Your task to perform on an android device: Search for a new bike on Walmart. Image 0: 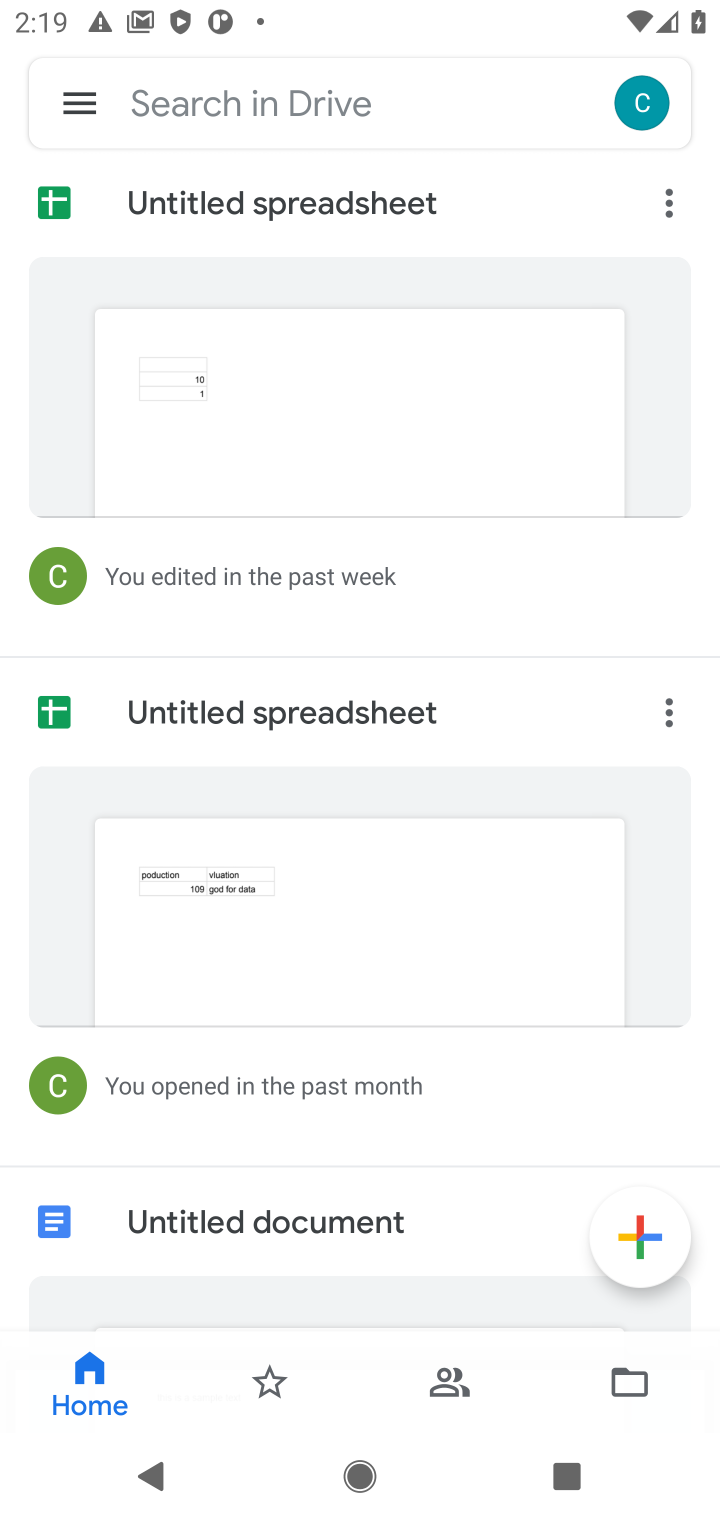
Step 0: press home button
Your task to perform on an android device: Search for a new bike on Walmart. Image 1: 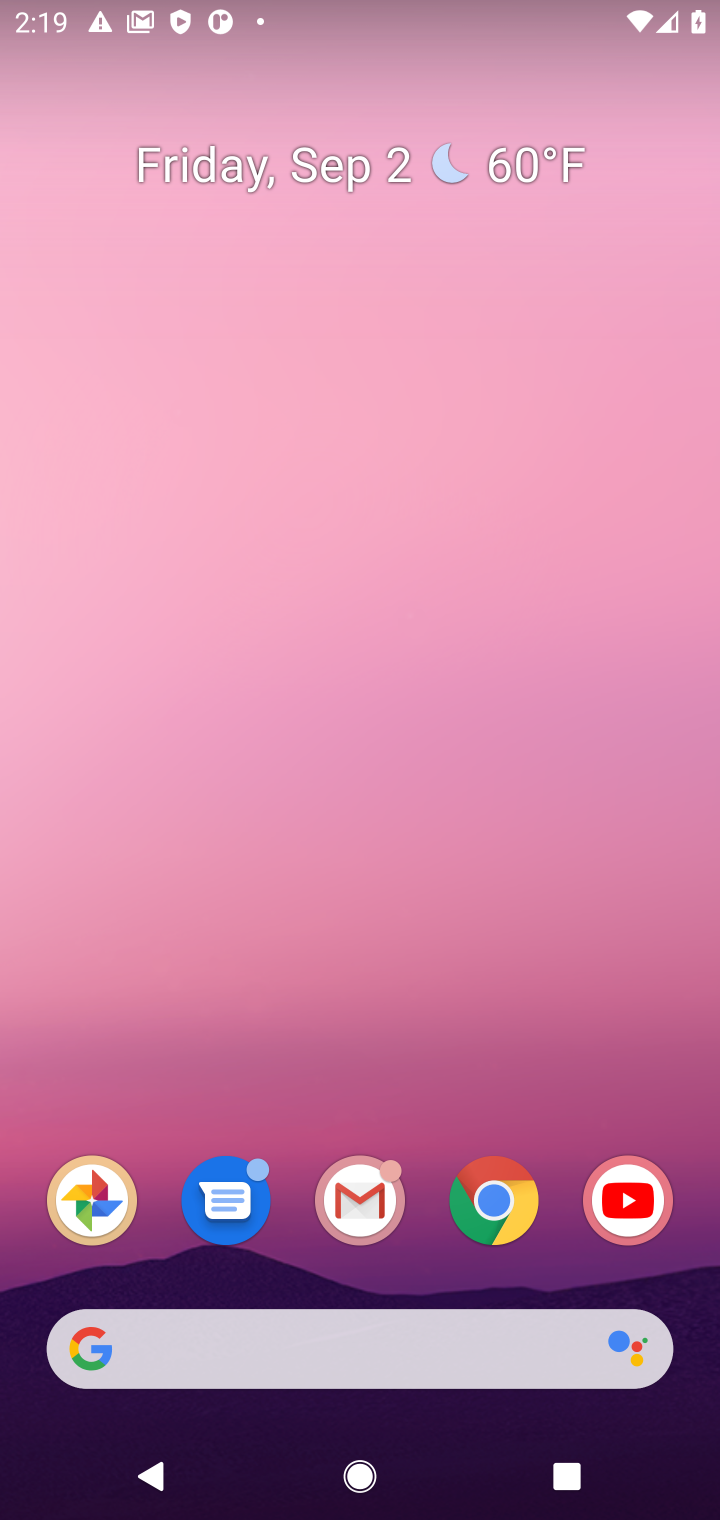
Step 1: click (485, 1198)
Your task to perform on an android device: Search for a new bike on Walmart. Image 2: 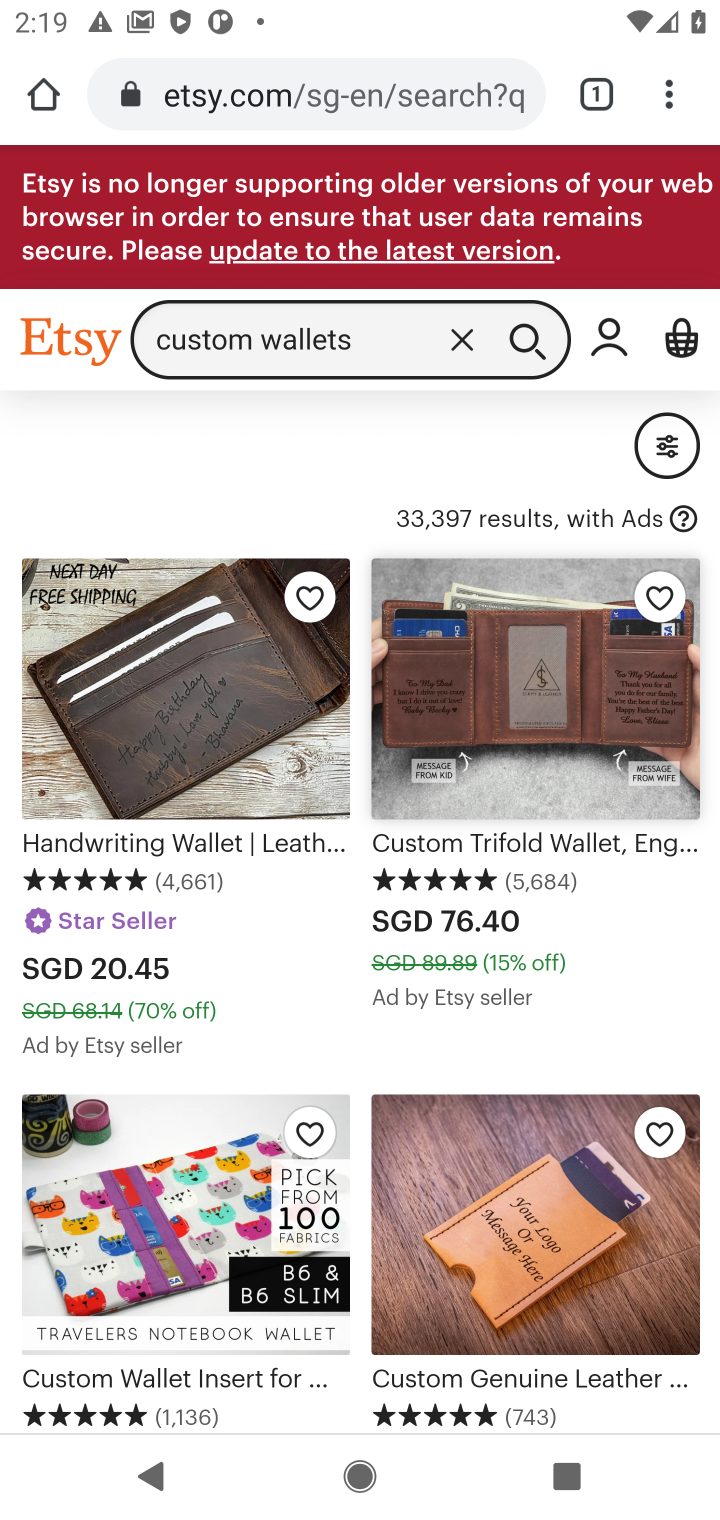
Step 2: click (339, 107)
Your task to perform on an android device: Search for a new bike on Walmart. Image 3: 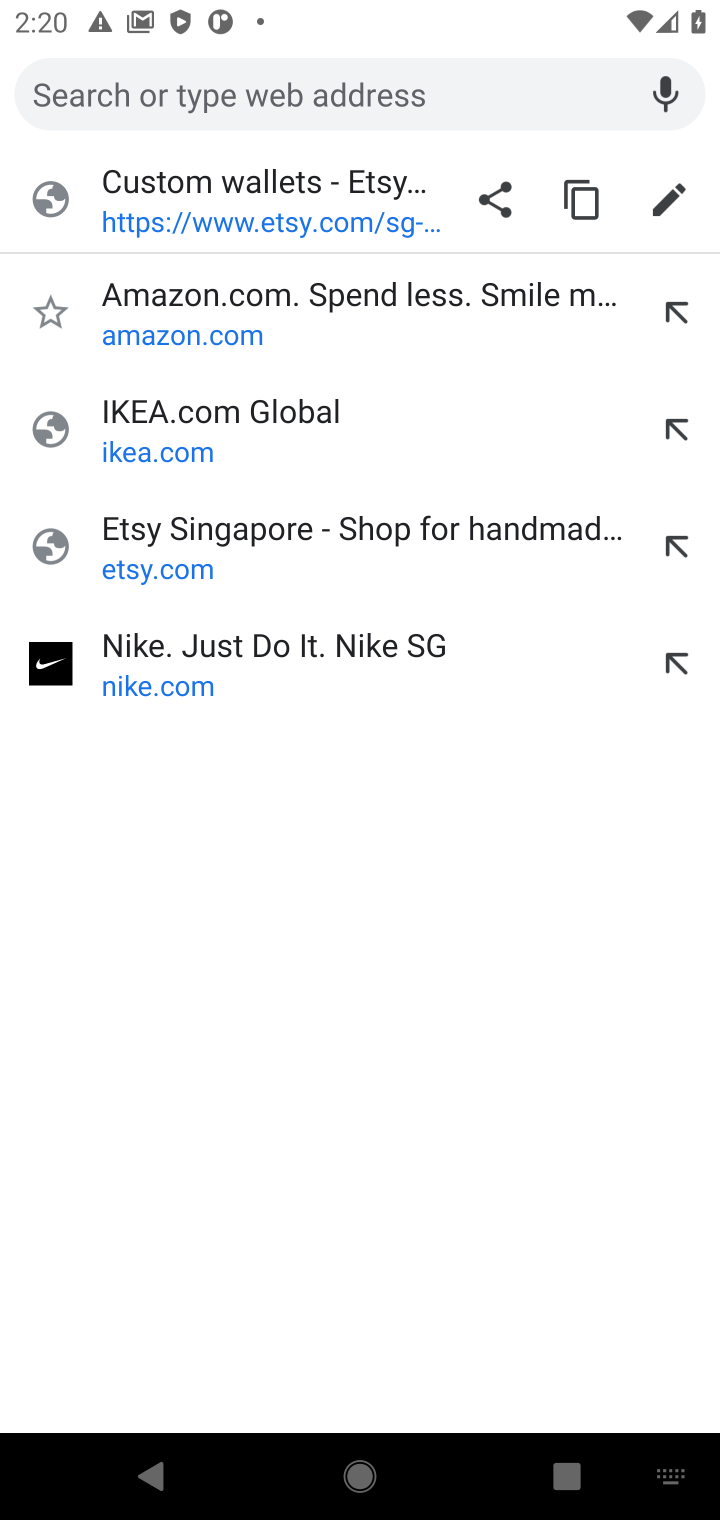
Step 3: type "Walmart"
Your task to perform on an android device: Search for a new bike on Walmart. Image 4: 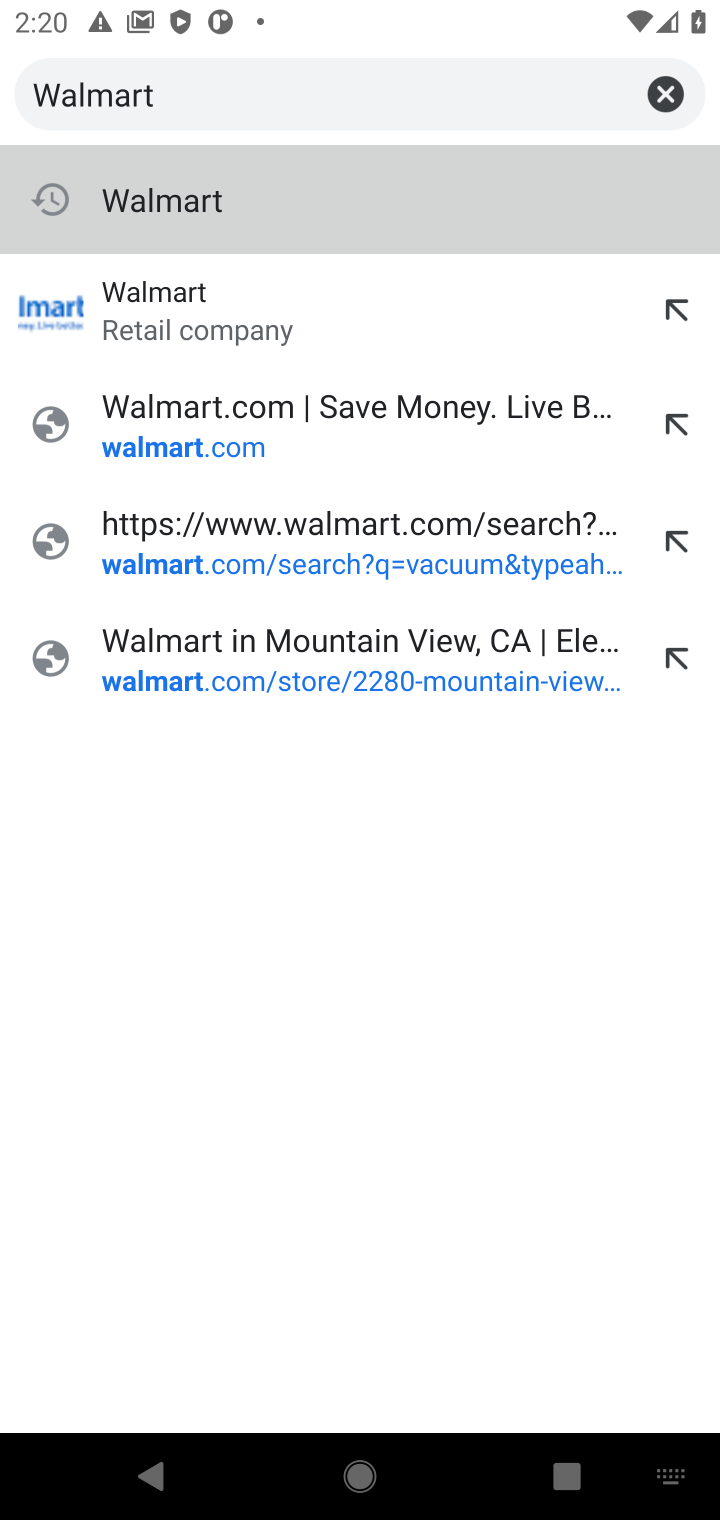
Step 4: press enter
Your task to perform on an android device: Search for a new bike on Walmart. Image 5: 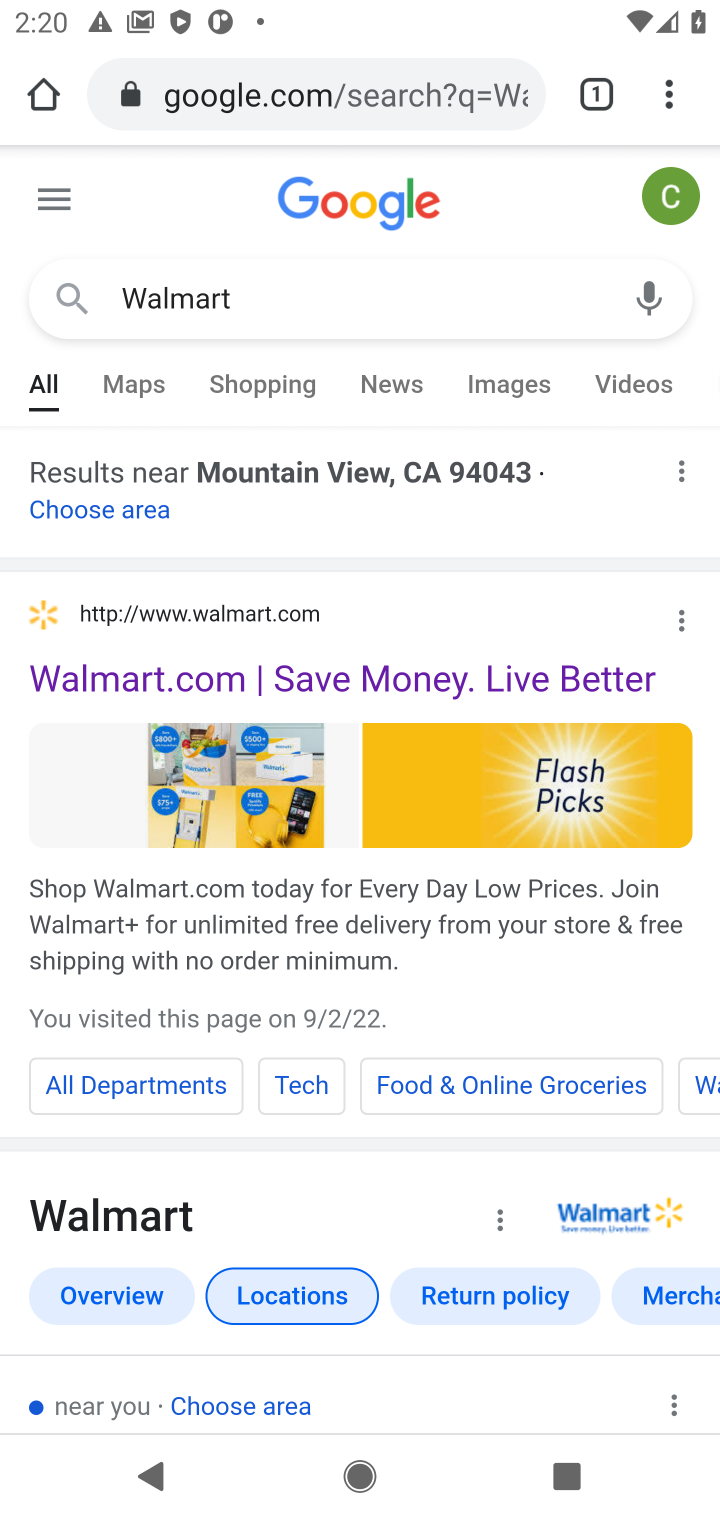
Step 5: drag from (422, 935) to (465, 178)
Your task to perform on an android device: Search for a new bike on Walmart. Image 6: 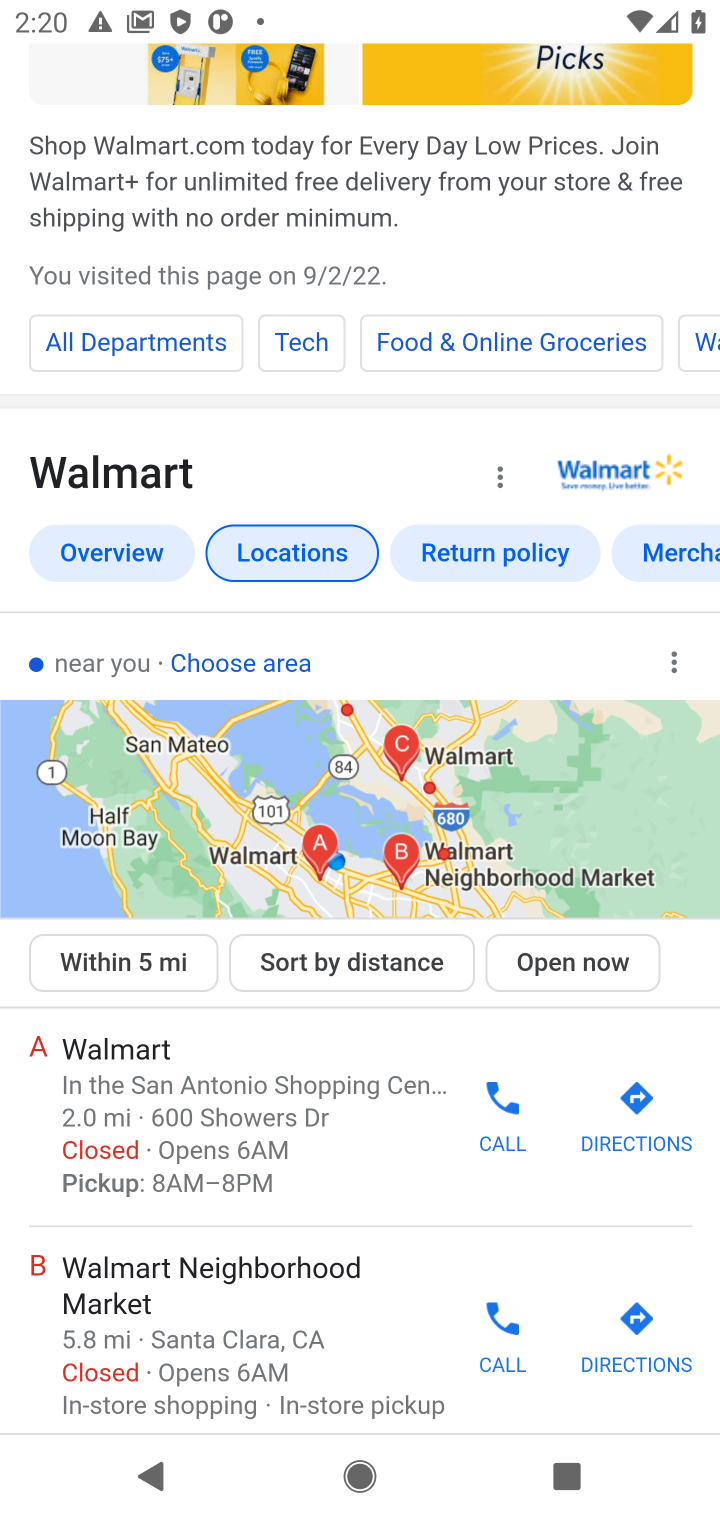
Step 6: drag from (358, 730) to (613, 110)
Your task to perform on an android device: Search for a new bike on Walmart. Image 7: 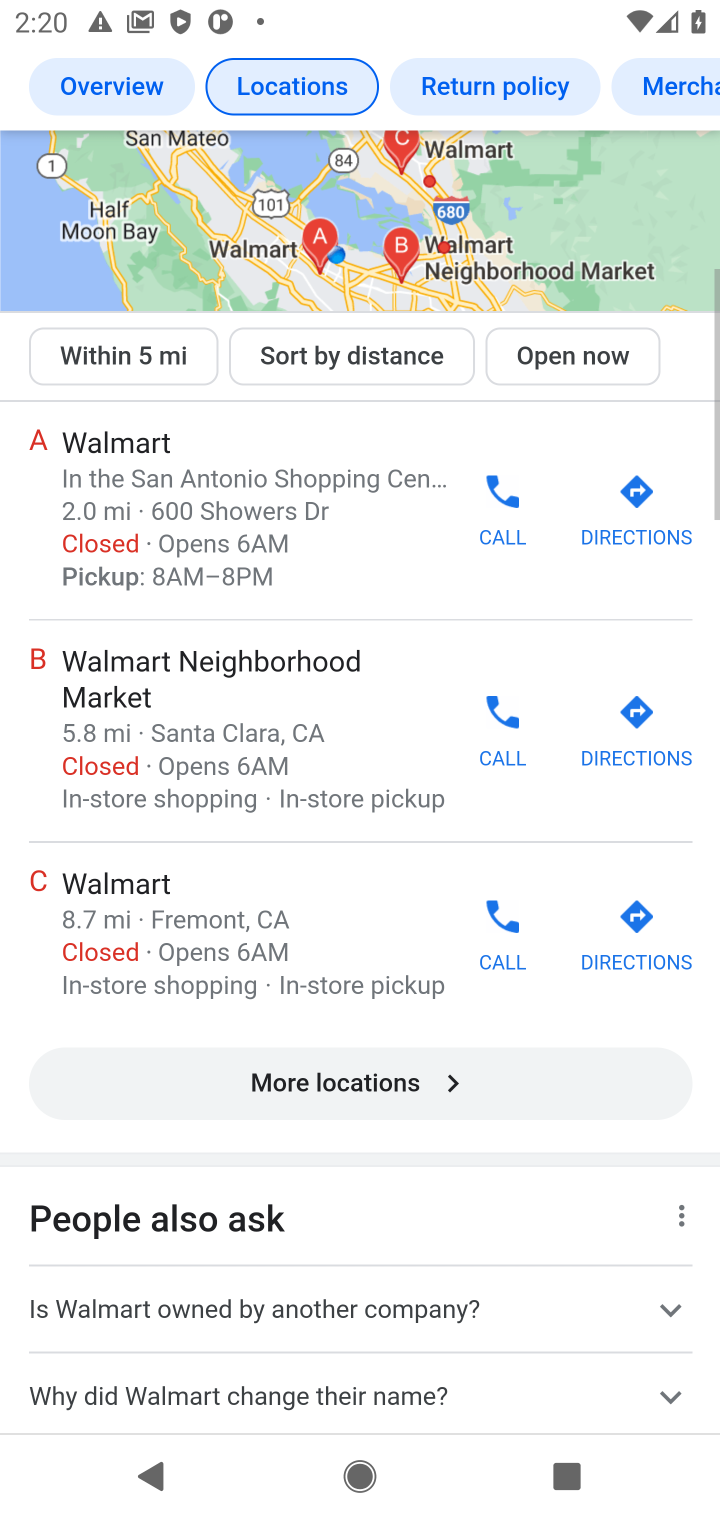
Step 7: drag from (225, 1222) to (507, 193)
Your task to perform on an android device: Search for a new bike on Walmart. Image 8: 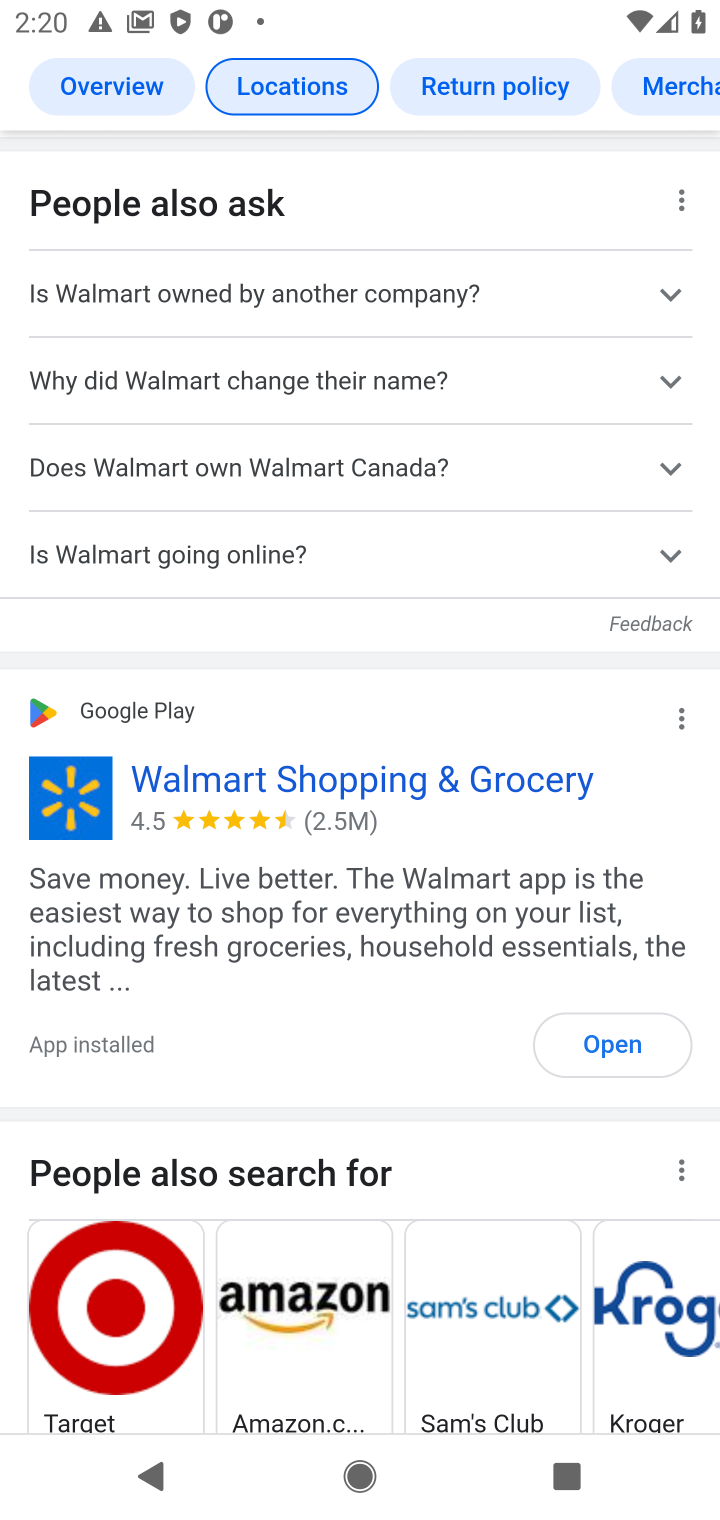
Step 8: drag from (204, 1217) to (450, 429)
Your task to perform on an android device: Search for a new bike on Walmart. Image 9: 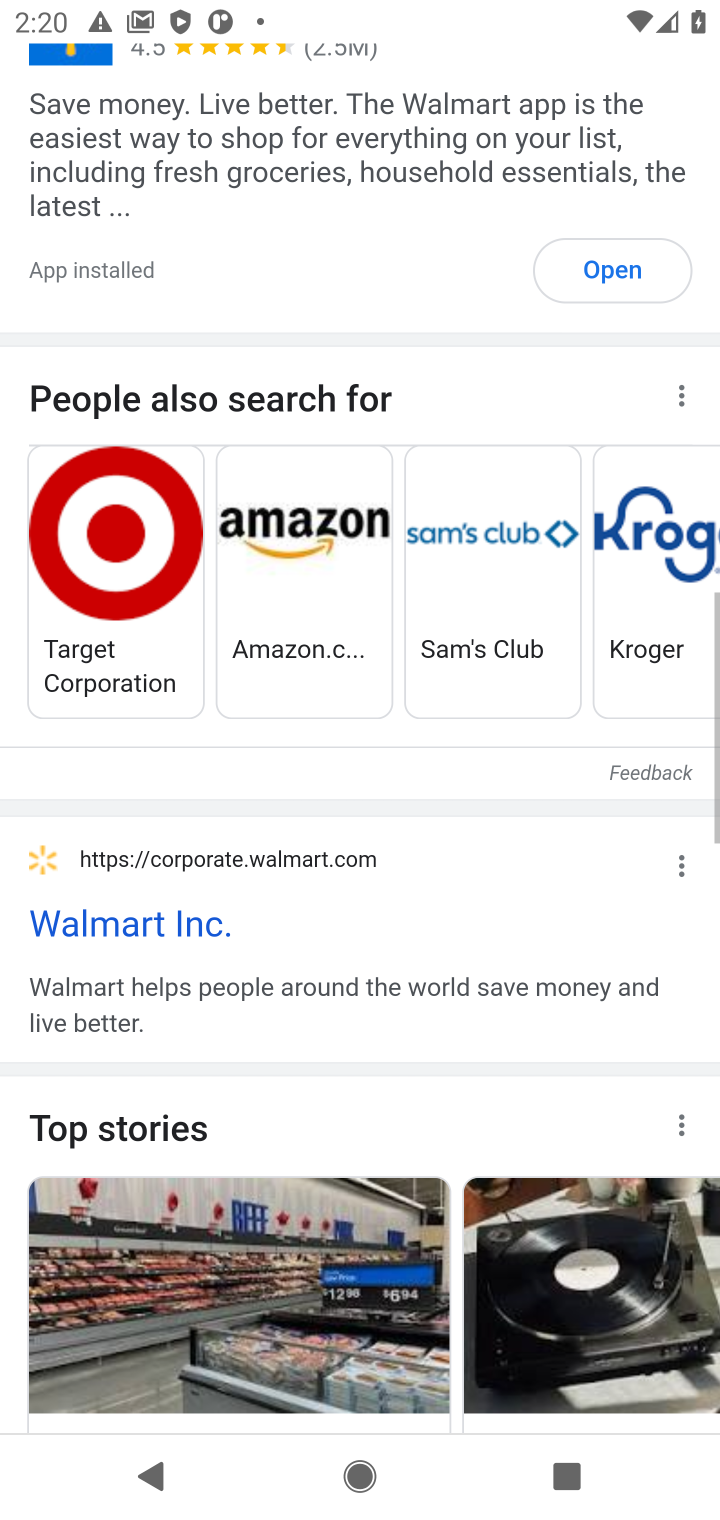
Step 9: drag from (375, 943) to (477, 228)
Your task to perform on an android device: Search for a new bike on Walmart. Image 10: 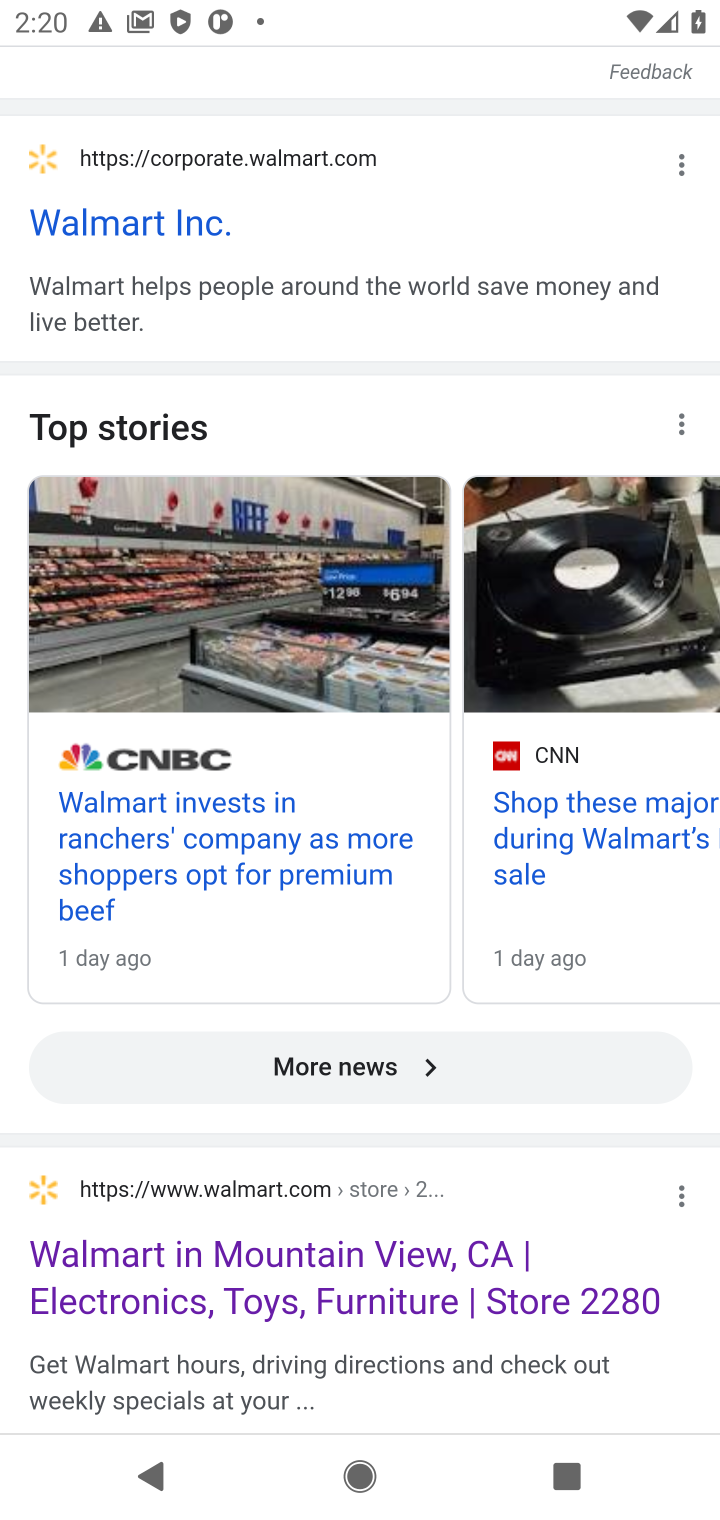
Step 10: drag from (286, 1315) to (471, 201)
Your task to perform on an android device: Search for a new bike on Walmart. Image 11: 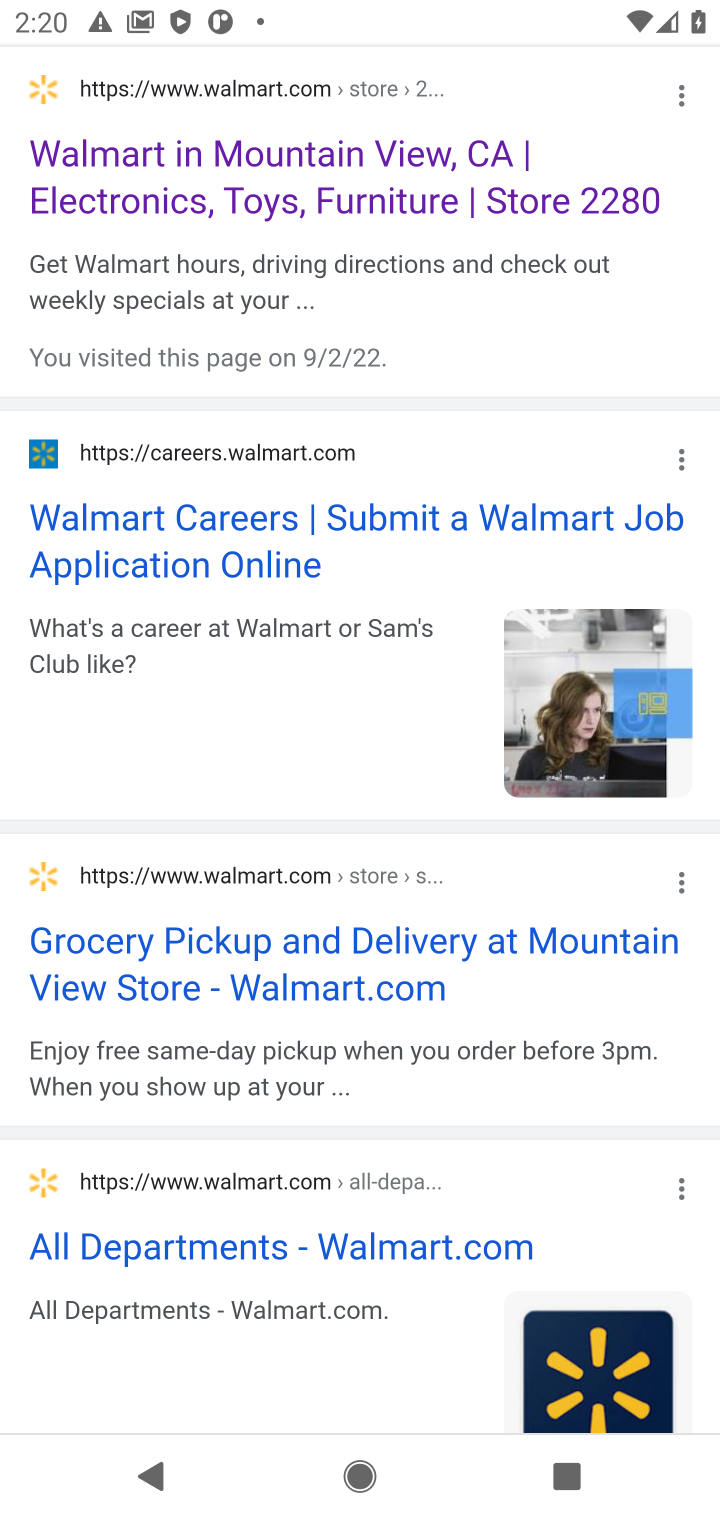
Step 11: drag from (372, 1128) to (496, 667)
Your task to perform on an android device: Search for a new bike on Walmart. Image 12: 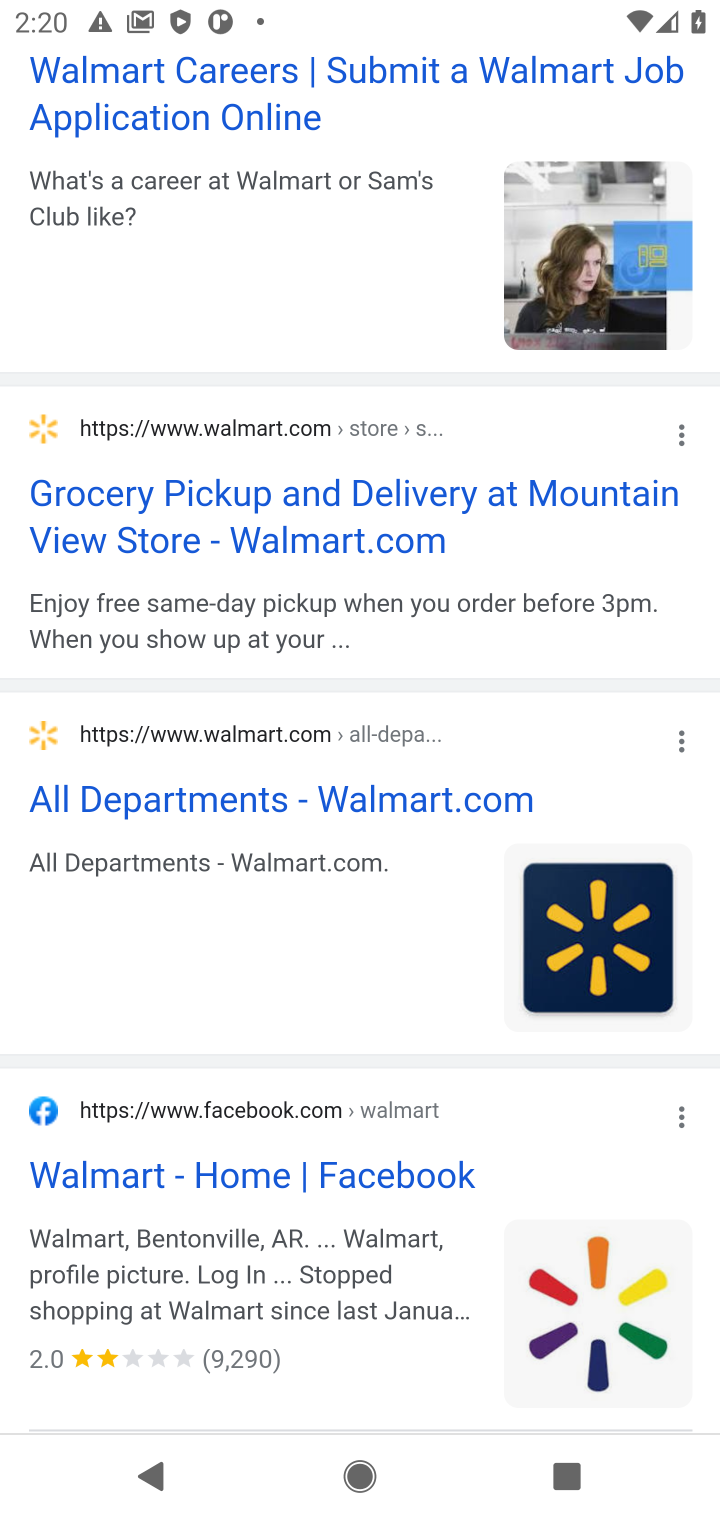
Step 12: click (374, 798)
Your task to perform on an android device: Search for a new bike on Walmart. Image 13: 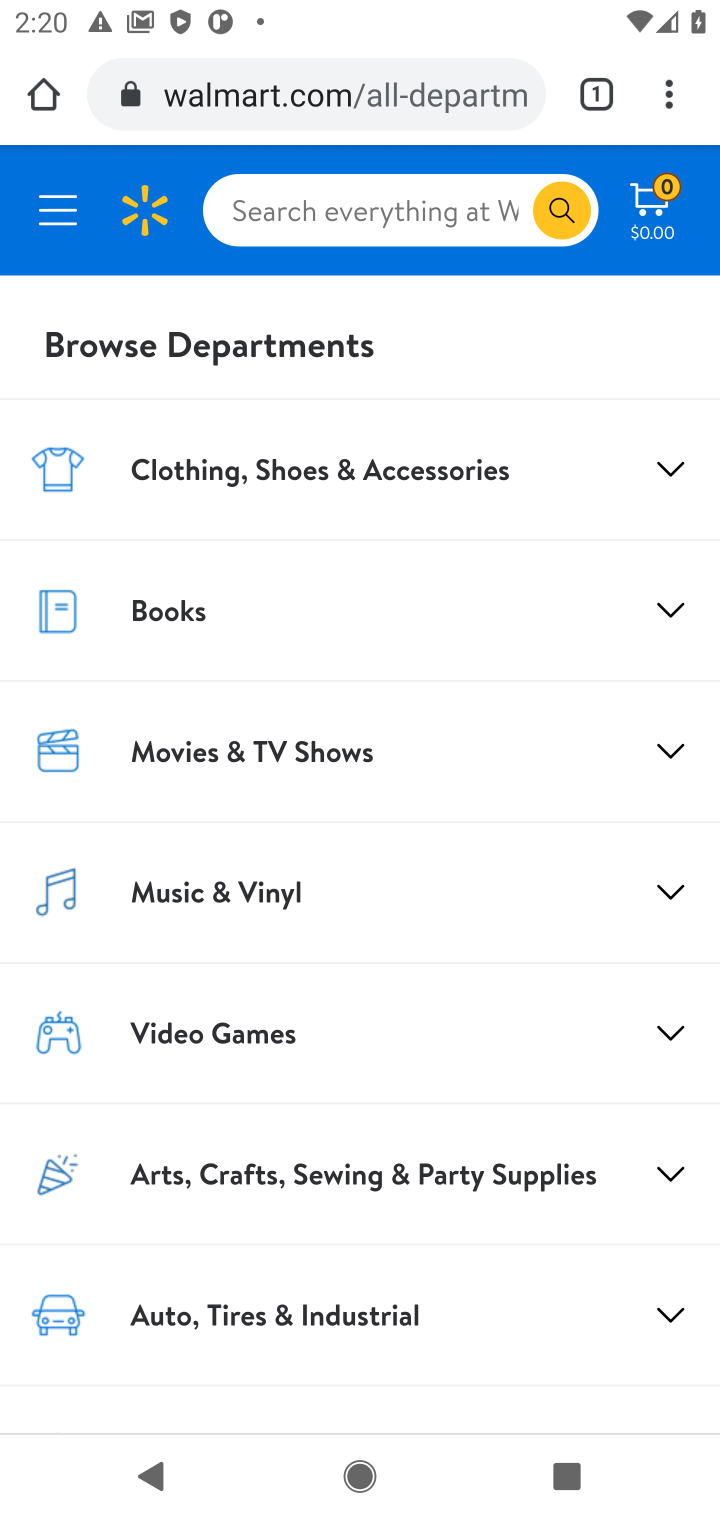
Step 13: click (293, 216)
Your task to perform on an android device: Search for a new bike on Walmart. Image 14: 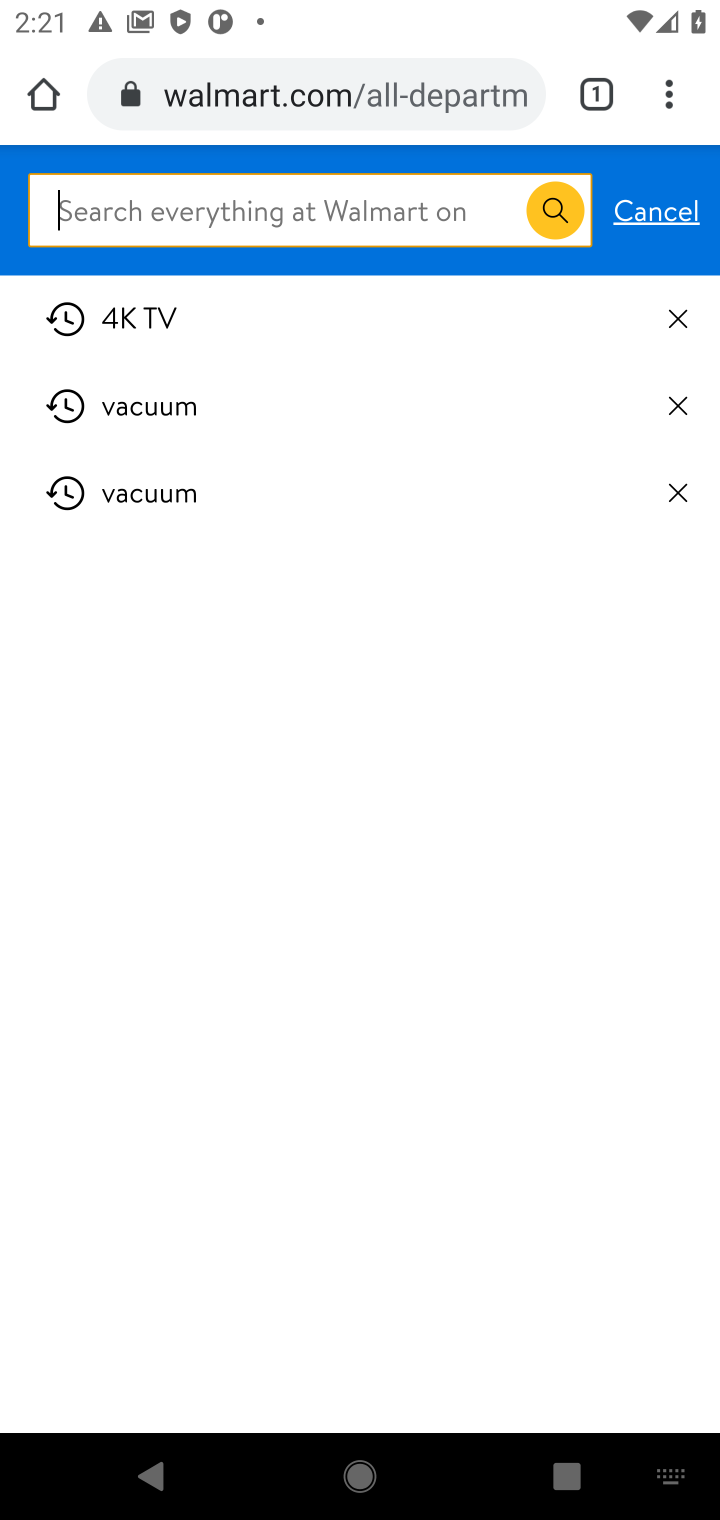
Step 14: type "new bike"
Your task to perform on an android device: Search for a new bike on Walmart. Image 15: 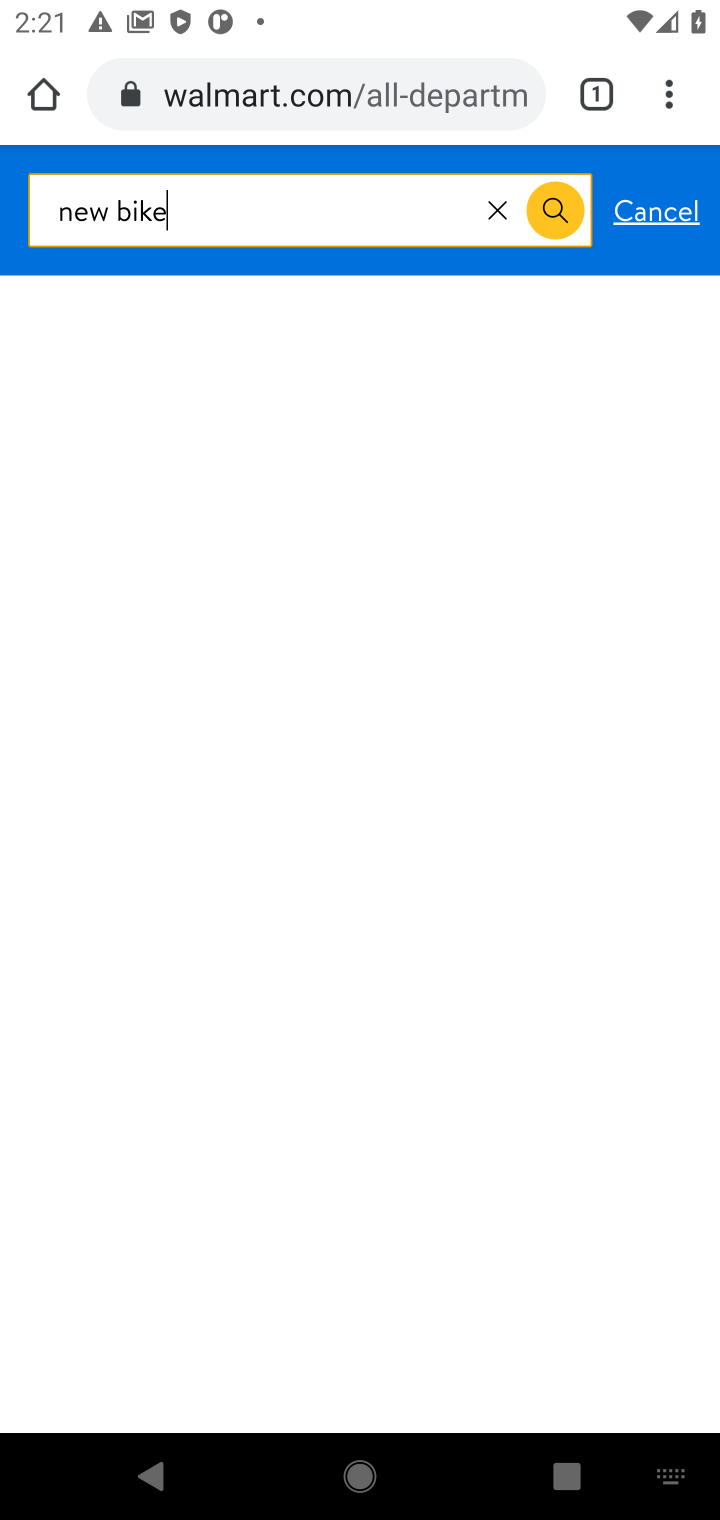
Step 15: press enter
Your task to perform on an android device: Search for a new bike on Walmart. Image 16: 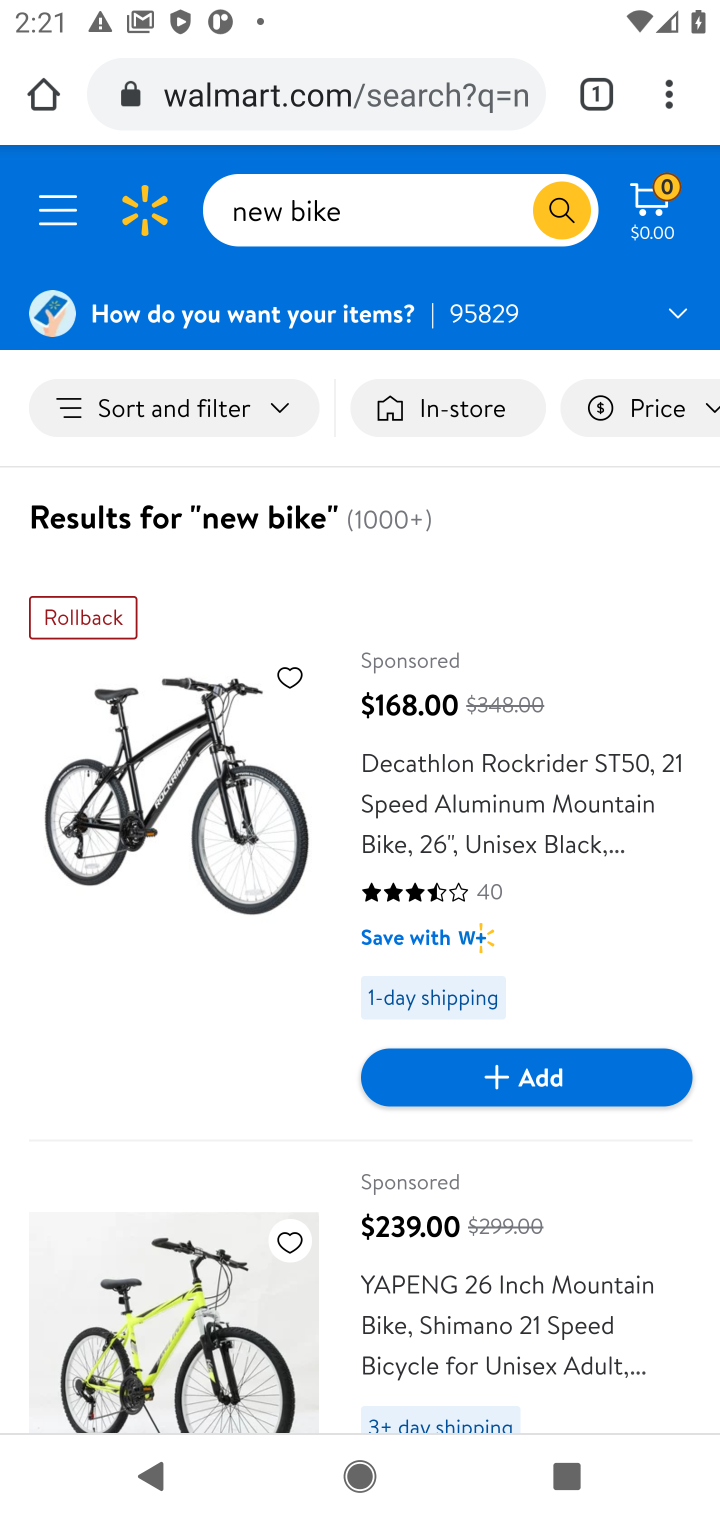
Step 16: task complete